Your task to perform on an android device: Open Google Image 0: 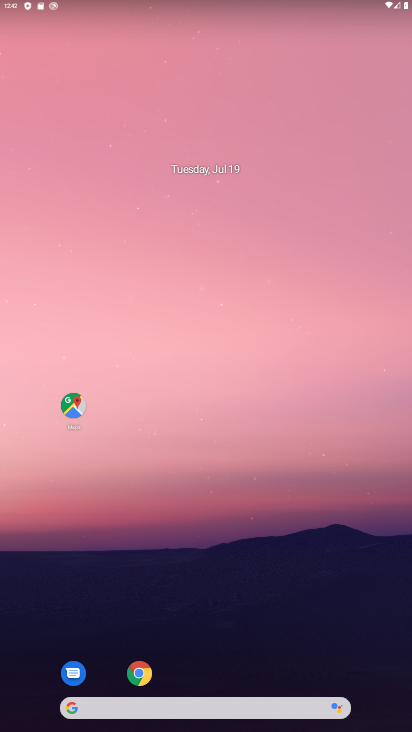
Step 0: click (166, 120)
Your task to perform on an android device: Open Google Image 1: 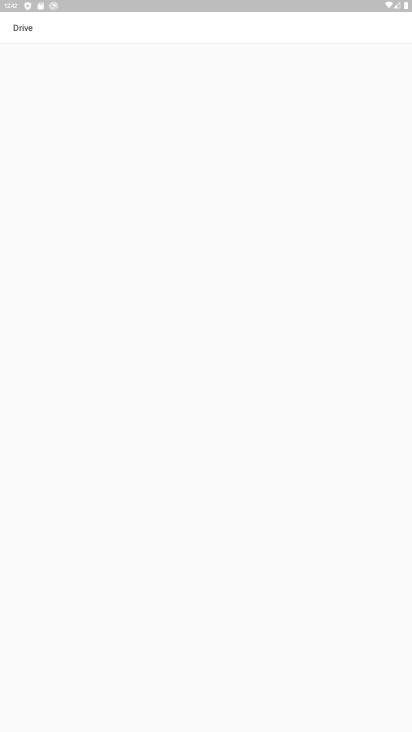
Step 1: task complete